Your task to perform on an android device: set the timer Image 0: 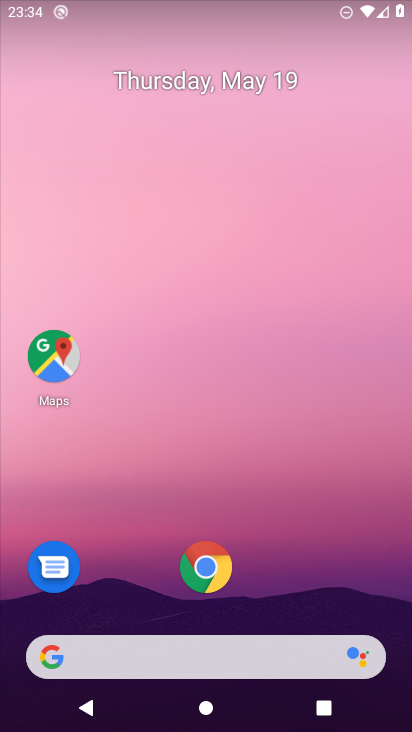
Step 0: drag from (245, 608) to (256, 0)
Your task to perform on an android device: set the timer Image 1: 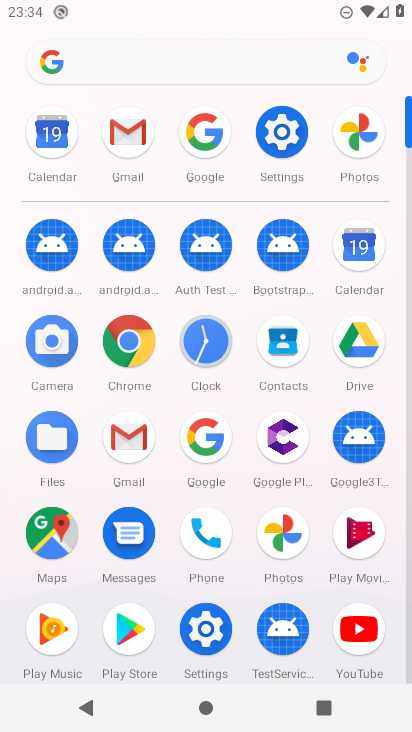
Step 1: click (208, 337)
Your task to perform on an android device: set the timer Image 2: 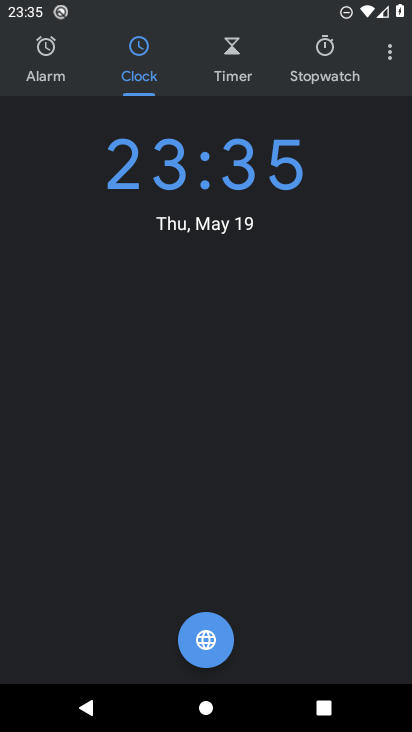
Step 2: click (224, 56)
Your task to perform on an android device: set the timer Image 3: 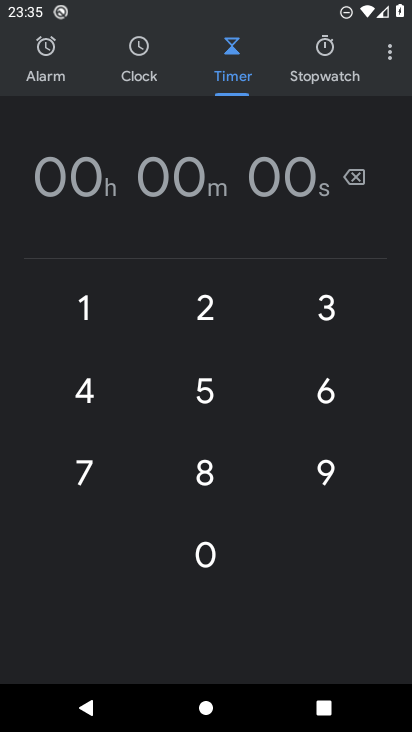
Step 3: drag from (195, 302) to (213, 545)
Your task to perform on an android device: set the timer Image 4: 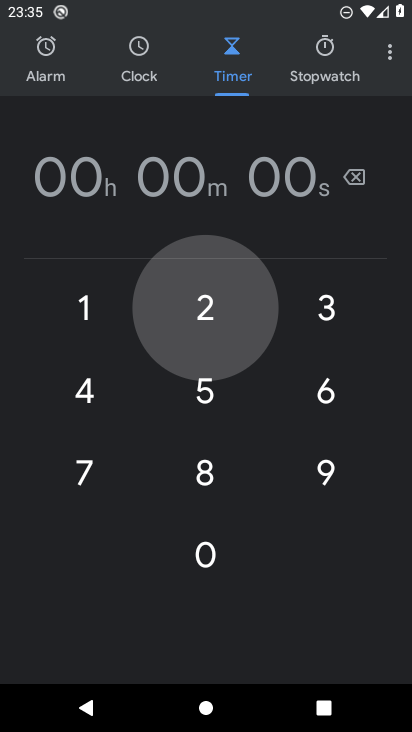
Step 4: click (215, 545)
Your task to perform on an android device: set the timer Image 5: 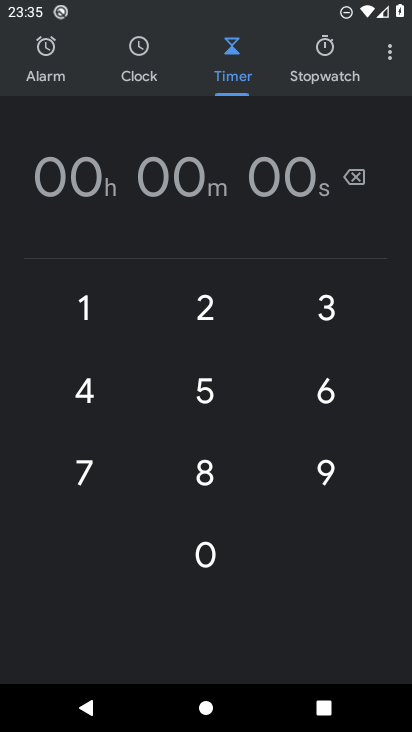
Step 5: click (198, 302)
Your task to perform on an android device: set the timer Image 6: 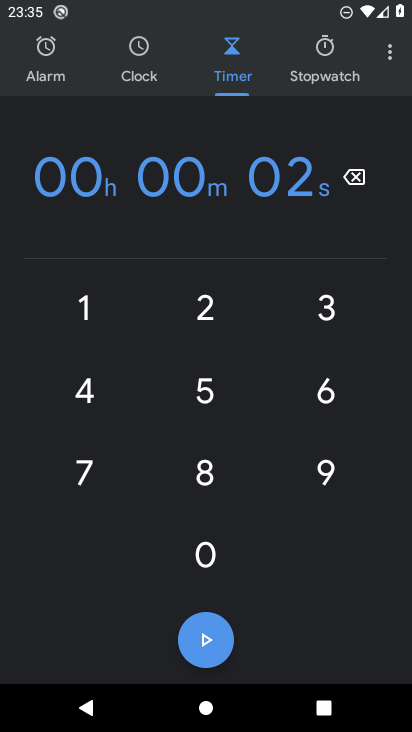
Step 6: click (193, 550)
Your task to perform on an android device: set the timer Image 7: 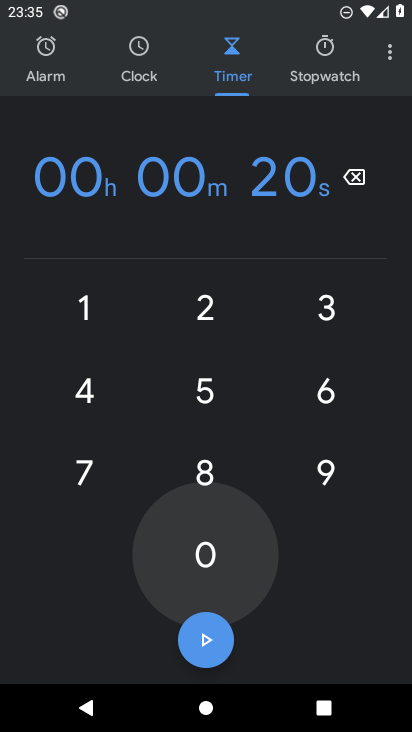
Step 7: click (193, 550)
Your task to perform on an android device: set the timer Image 8: 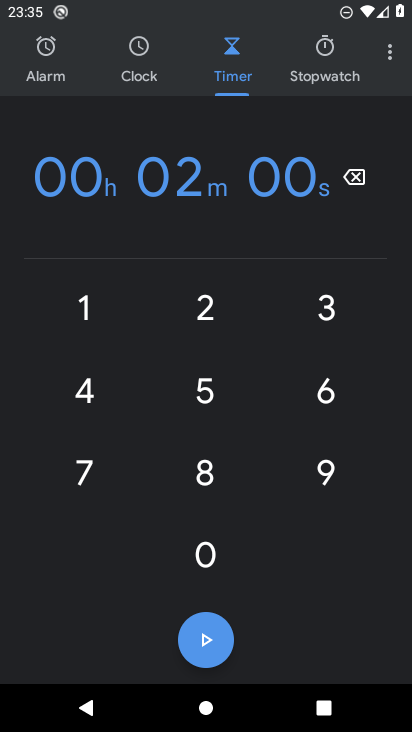
Step 8: click (193, 550)
Your task to perform on an android device: set the timer Image 9: 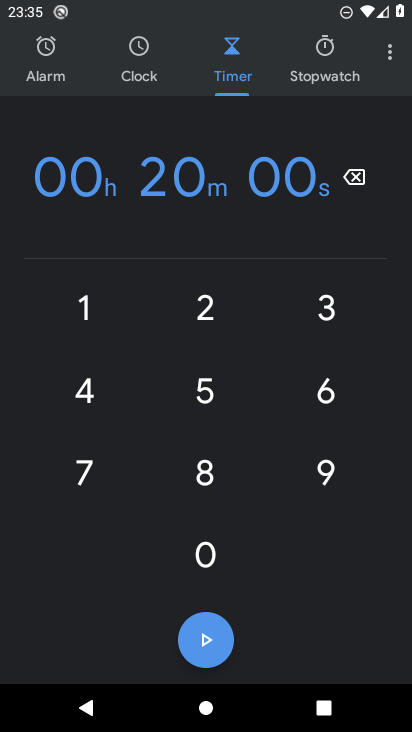
Step 9: click (196, 661)
Your task to perform on an android device: set the timer Image 10: 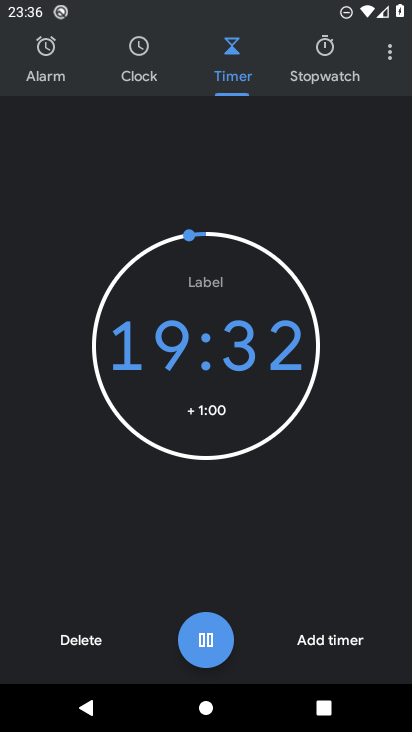
Step 10: task complete